Your task to perform on an android device: snooze an email in the gmail app Image 0: 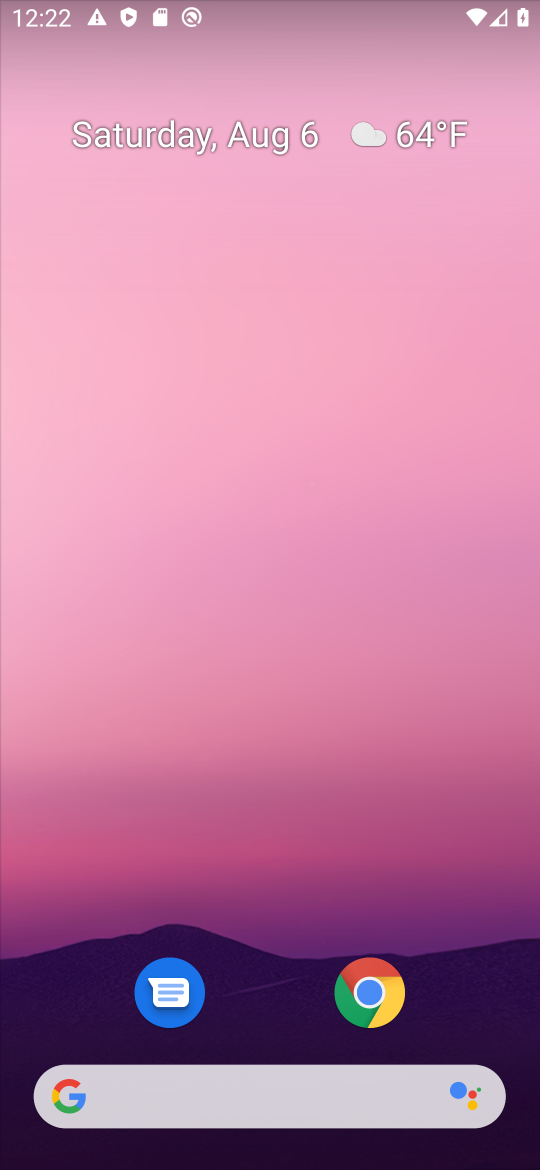
Step 0: drag from (306, 1087) to (455, 192)
Your task to perform on an android device: snooze an email in the gmail app Image 1: 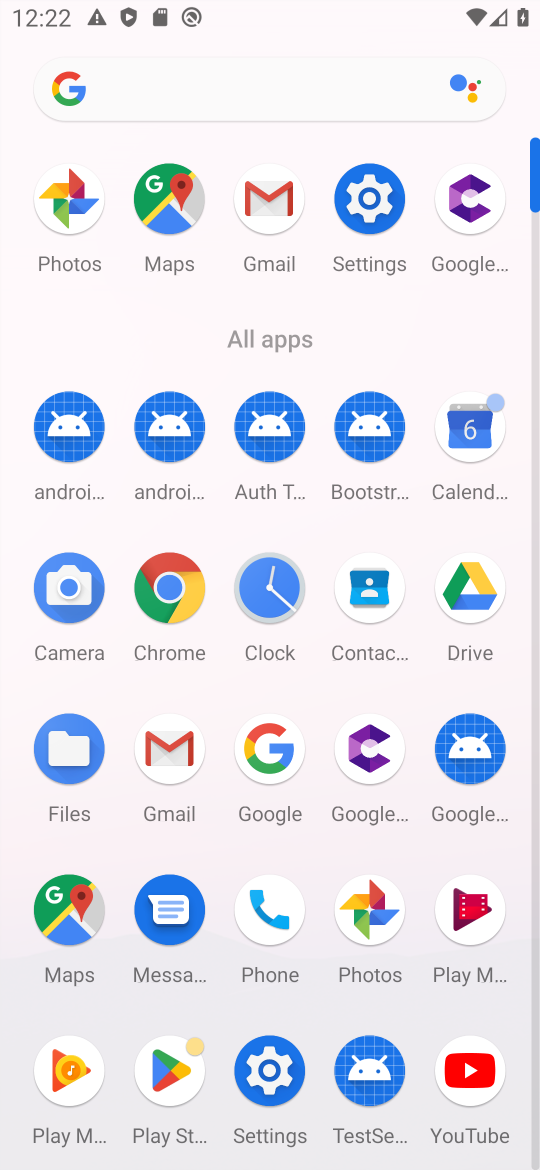
Step 1: click (271, 215)
Your task to perform on an android device: snooze an email in the gmail app Image 2: 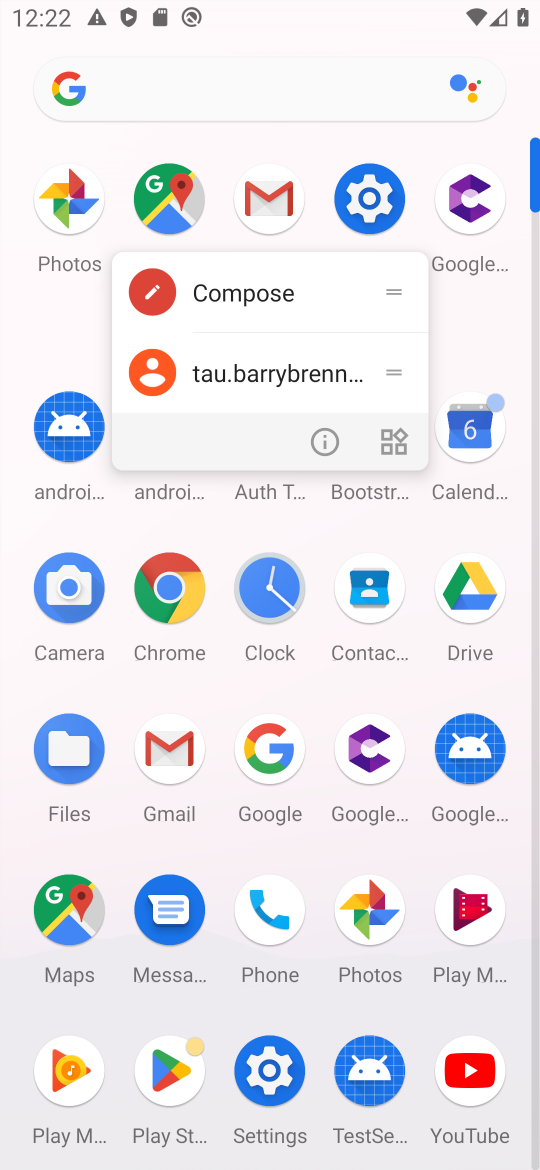
Step 2: click (263, 204)
Your task to perform on an android device: snooze an email in the gmail app Image 3: 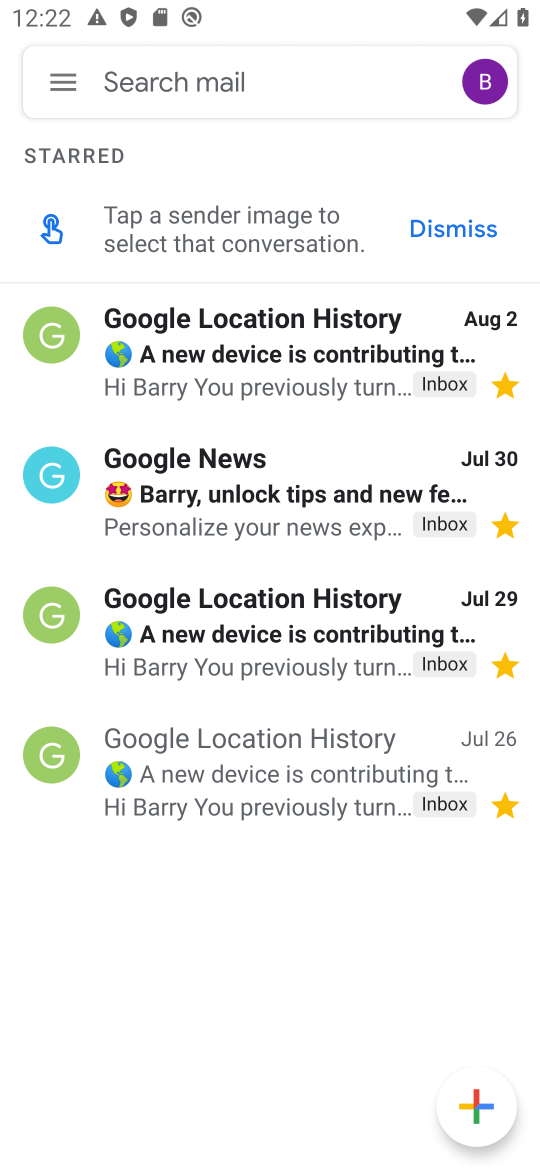
Step 3: click (60, 343)
Your task to perform on an android device: snooze an email in the gmail app Image 4: 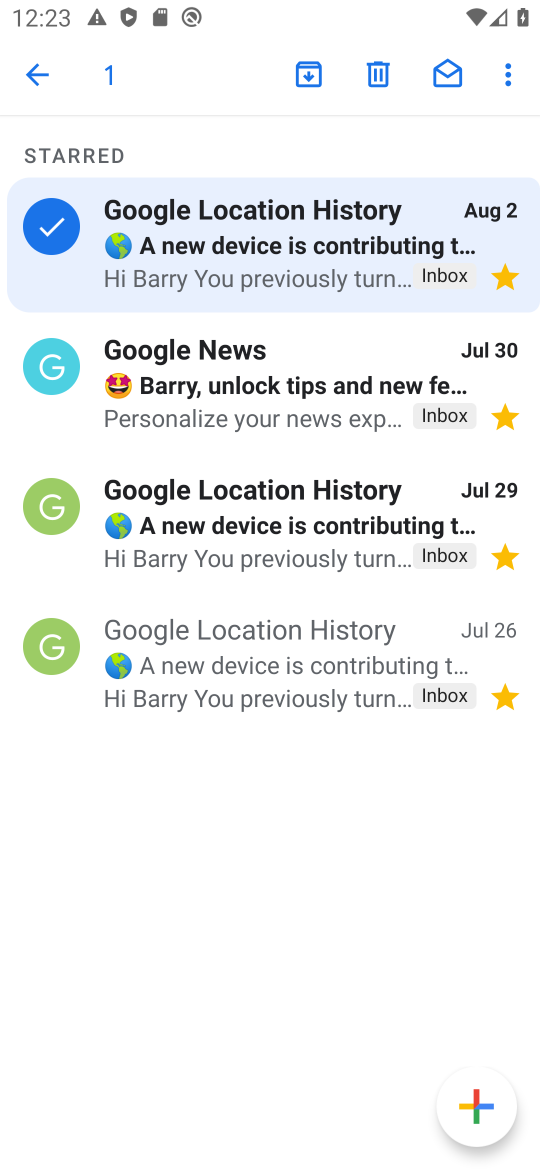
Step 4: click (507, 69)
Your task to perform on an android device: snooze an email in the gmail app Image 5: 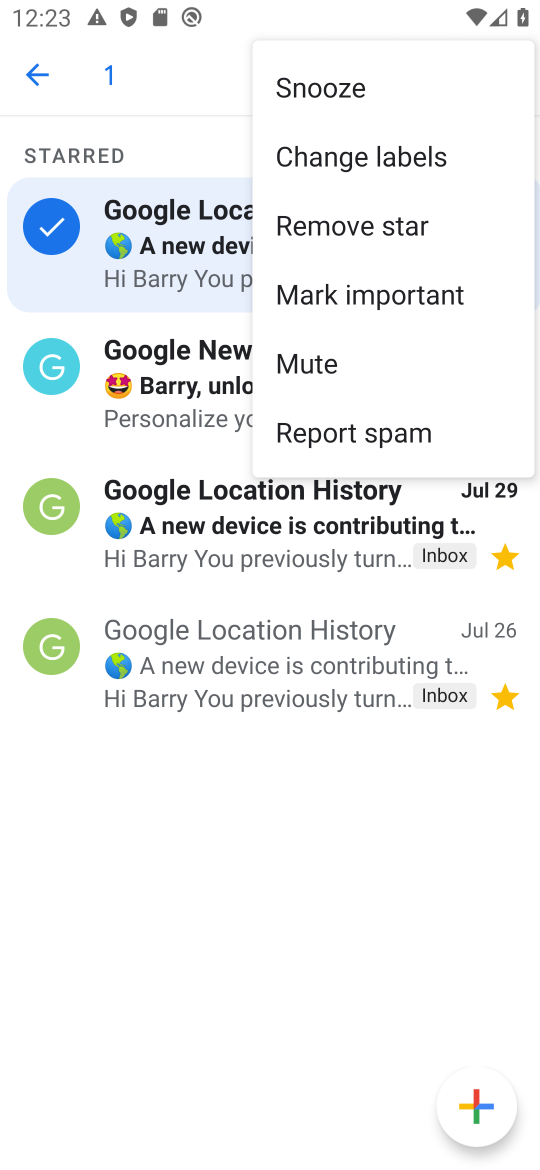
Step 5: click (323, 89)
Your task to perform on an android device: snooze an email in the gmail app Image 6: 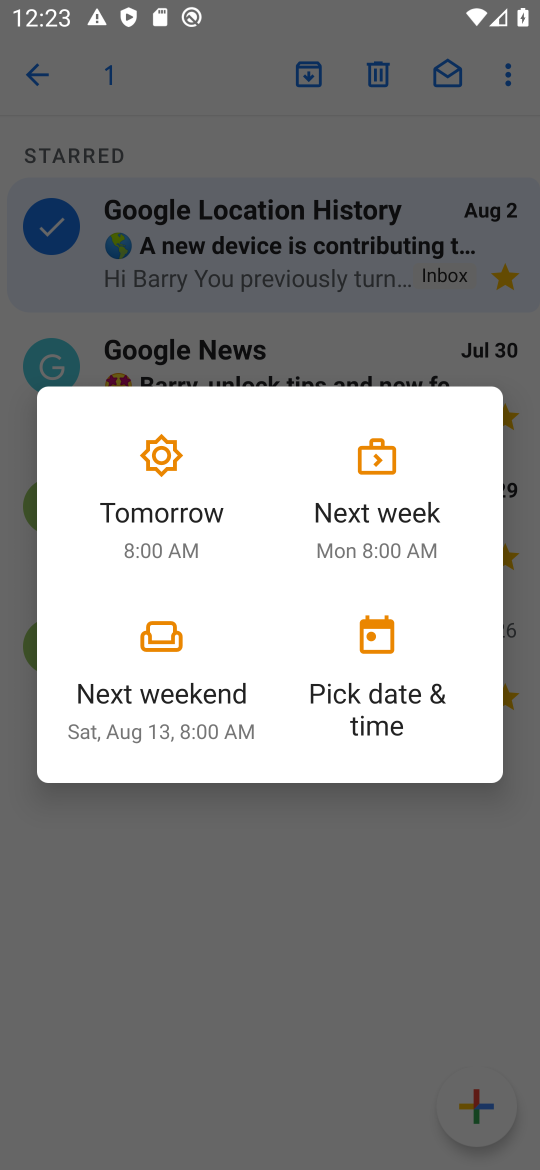
Step 6: click (196, 498)
Your task to perform on an android device: snooze an email in the gmail app Image 7: 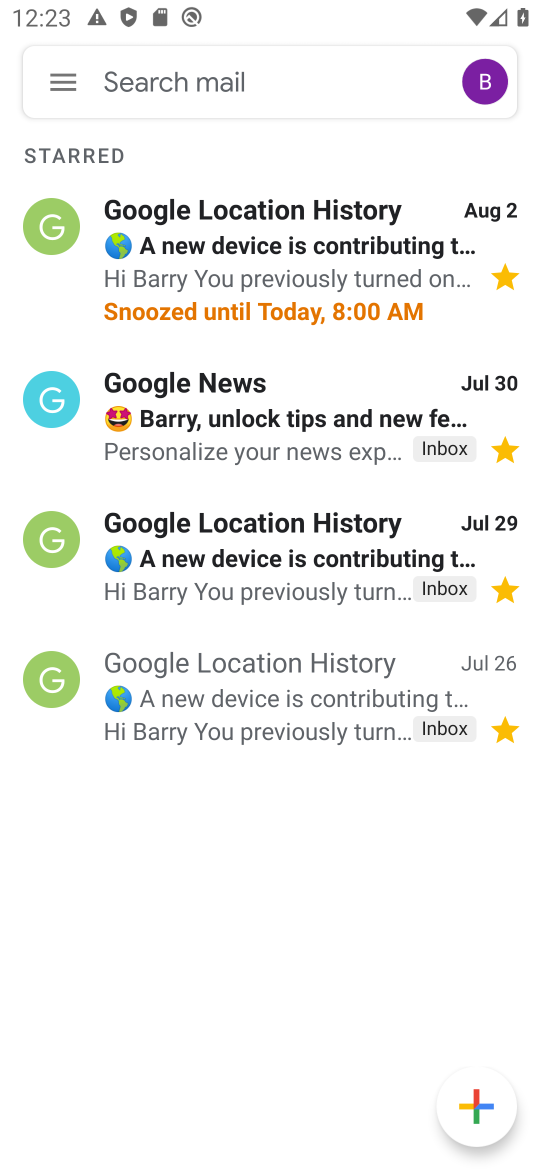
Step 7: task complete